Your task to perform on an android device: manage bookmarks in the chrome app Image 0: 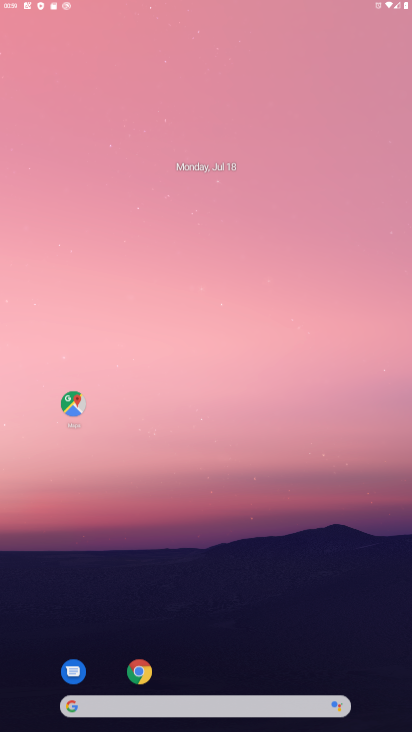
Step 0: drag from (229, 10) to (207, 53)
Your task to perform on an android device: manage bookmarks in the chrome app Image 1: 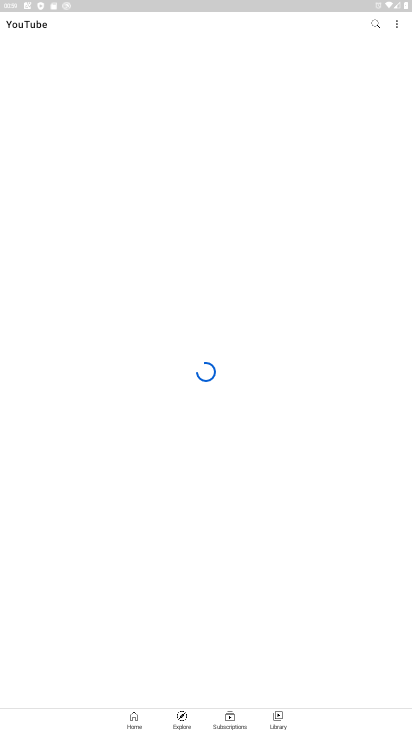
Step 1: press home button
Your task to perform on an android device: manage bookmarks in the chrome app Image 2: 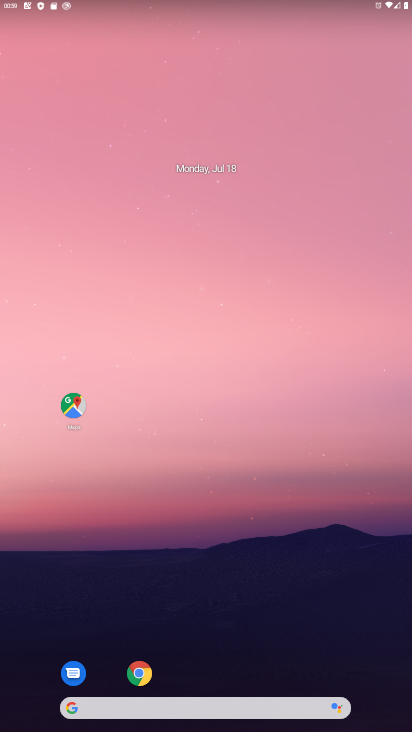
Step 2: click (141, 670)
Your task to perform on an android device: manage bookmarks in the chrome app Image 3: 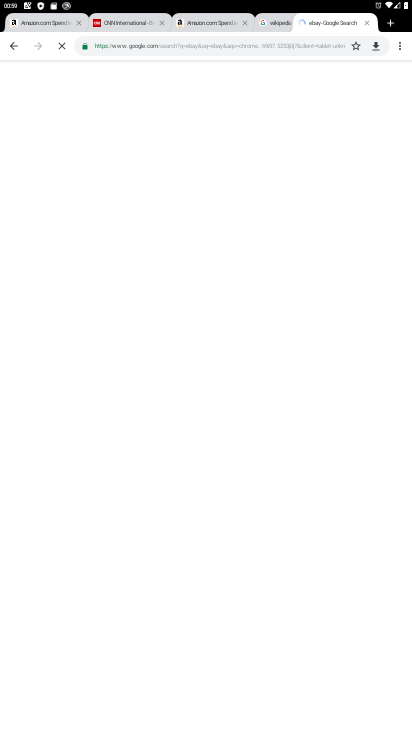
Step 3: click (394, 58)
Your task to perform on an android device: manage bookmarks in the chrome app Image 4: 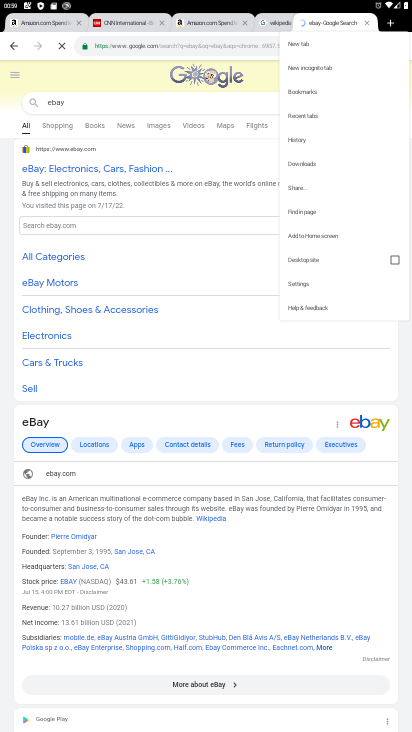
Step 4: click (318, 88)
Your task to perform on an android device: manage bookmarks in the chrome app Image 5: 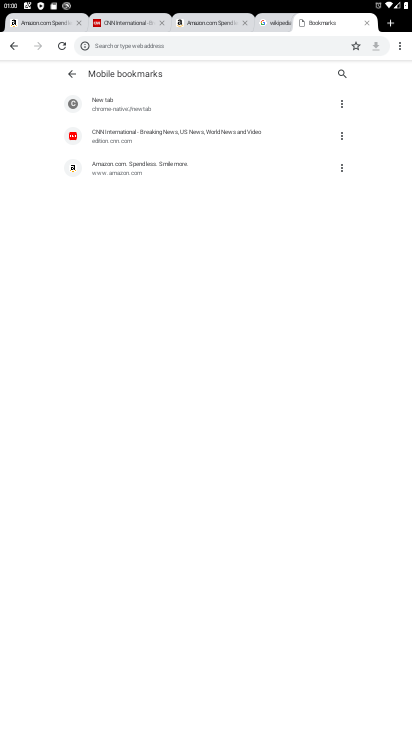
Step 5: task complete